Your task to perform on an android device: check storage Image 0: 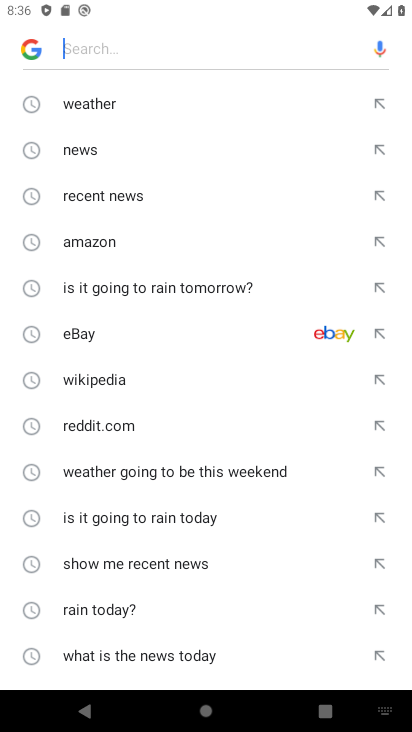
Step 0: press home button
Your task to perform on an android device: check storage Image 1: 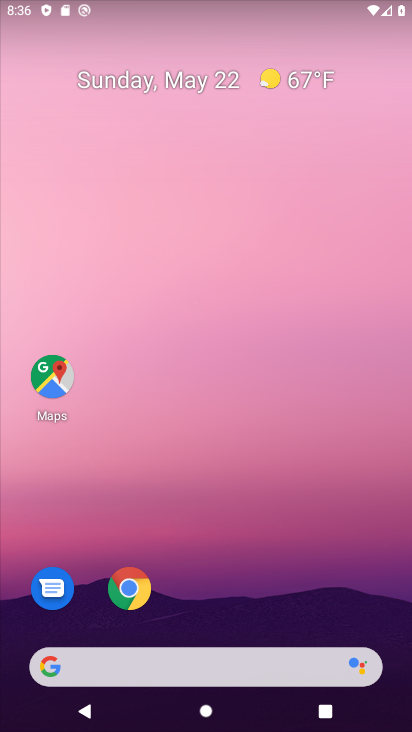
Step 1: drag from (230, 596) to (241, 211)
Your task to perform on an android device: check storage Image 2: 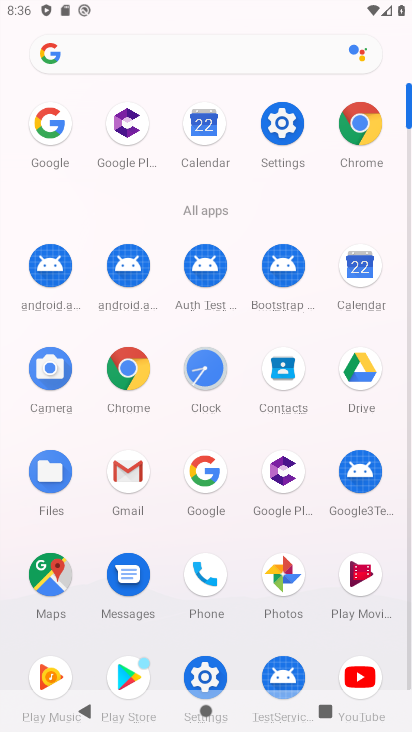
Step 2: click (285, 127)
Your task to perform on an android device: check storage Image 3: 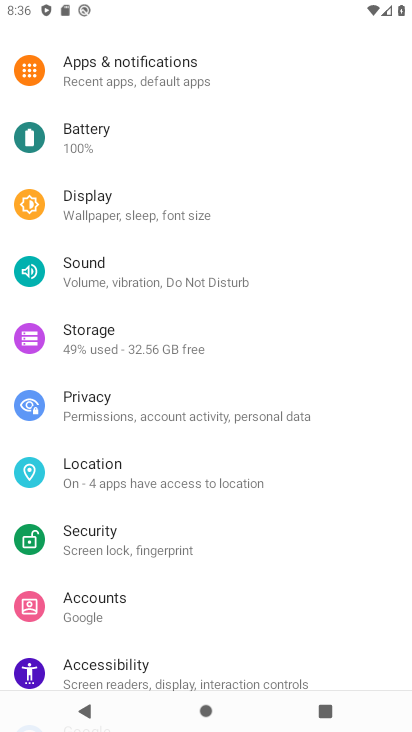
Step 3: drag from (223, 568) to (279, 227)
Your task to perform on an android device: check storage Image 4: 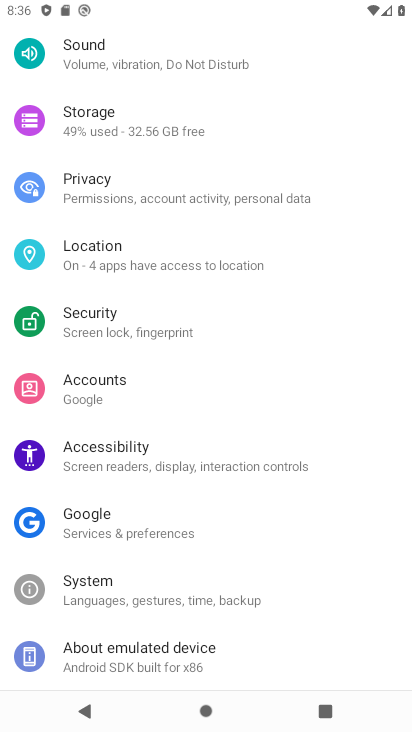
Step 4: drag from (171, 589) to (192, 477)
Your task to perform on an android device: check storage Image 5: 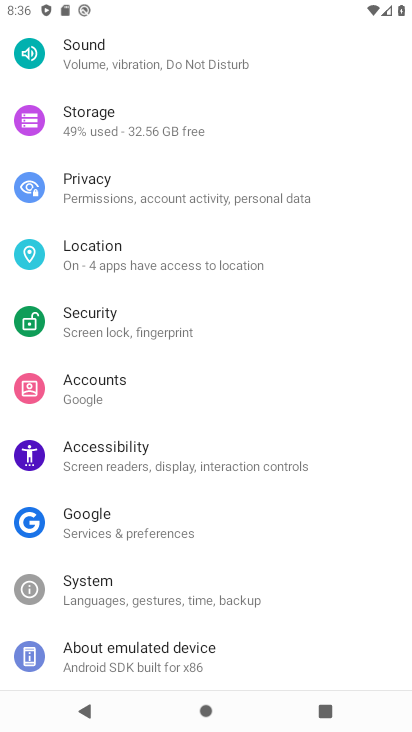
Step 5: click (149, 124)
Your task to perform on an android device: check storage Image 6: 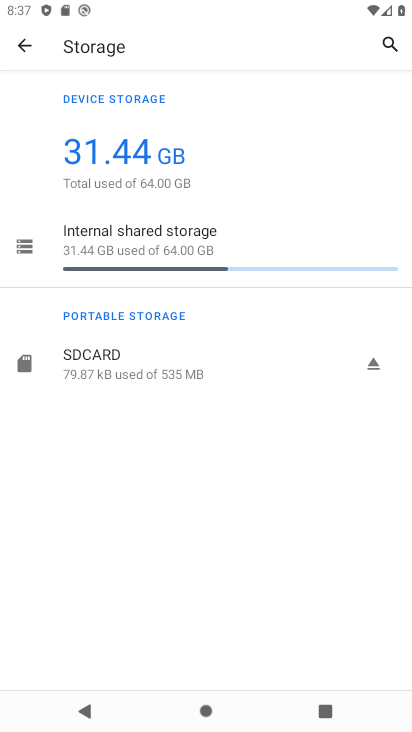
Step 6: task complete